Your task to perform on an android device: Search for Italian restaurants on Maps Image 0: 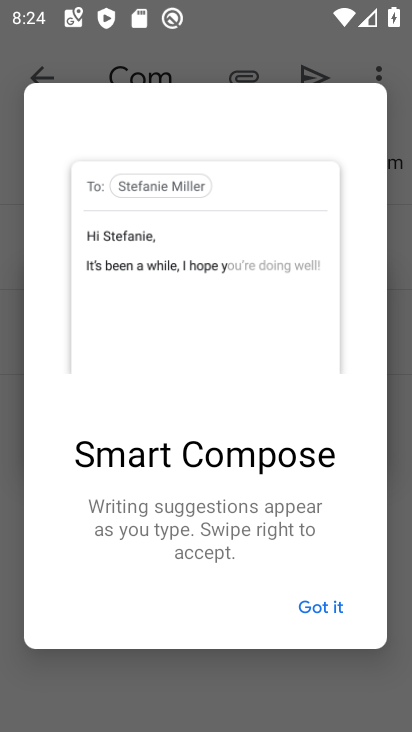
Step 0: press home button
Your task to perform on an android device: Search for Italian restaurants on Maps Image 1: 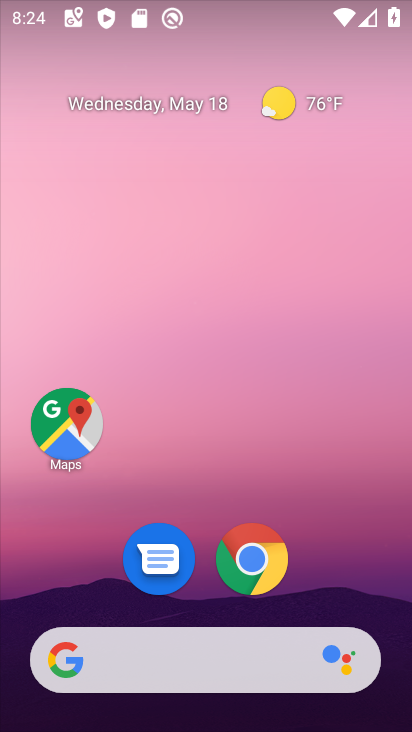
Step 1: click (74, 422)
Your task to perform on an android device: Search for Italian restaurants on Maps Image 2: 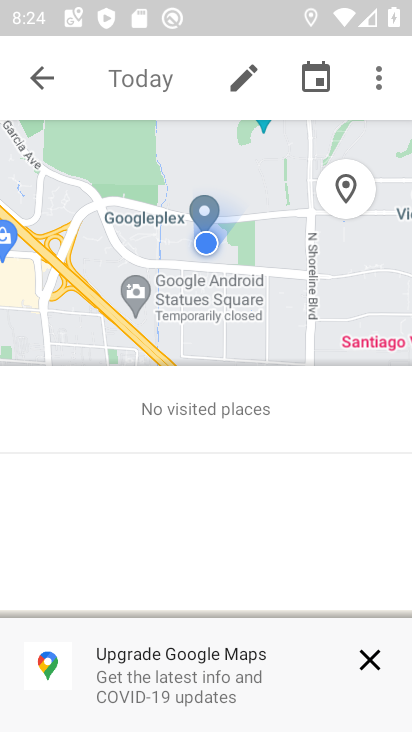
Step 2: press back button
Your task to perform on an android device: Search for Italian restaurants on Maps Image 3: 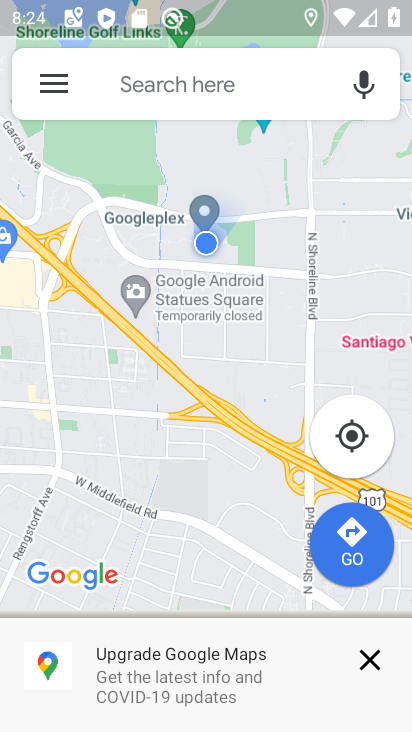
Step 3: click (165, 90)
Your task to perform on an android device: Search for Italian restaurants on Maps Image 4: 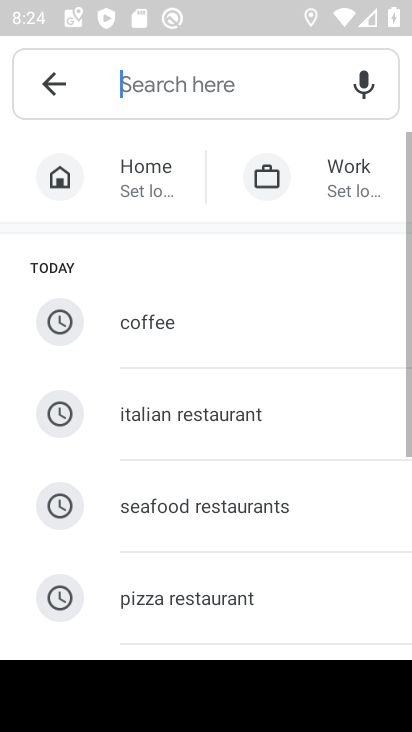
Step 4: click (205, 421)
Your task to perform on an android device: Search for Italian restaurants on Maps Image 5: 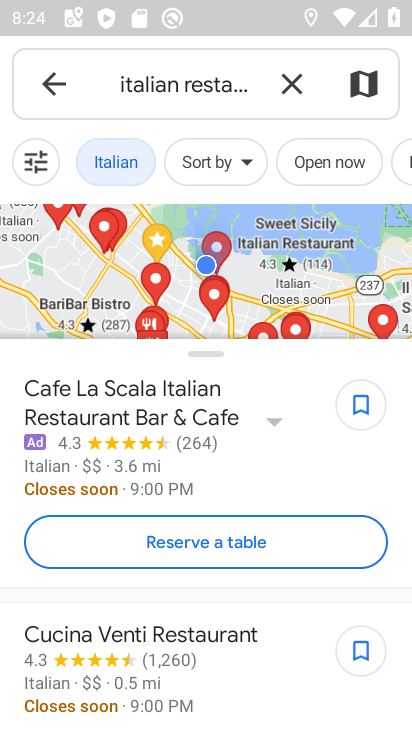
Step 5: task complete